Your task to perform on an android device: What is the recent news? Image 0: 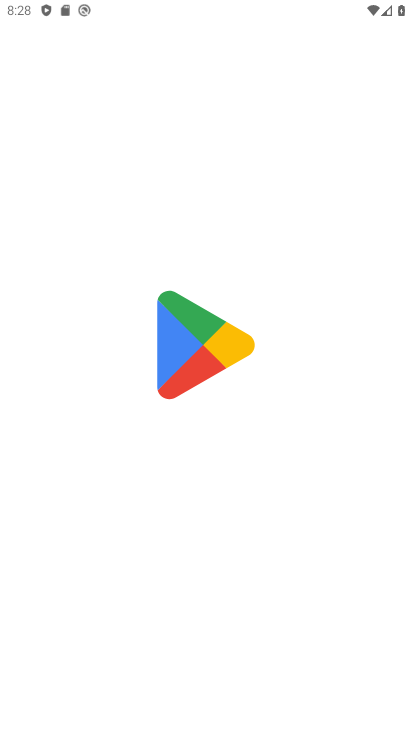
Step 0: press home button
Your task to perform on an android device: What is the recent news? Image 1: 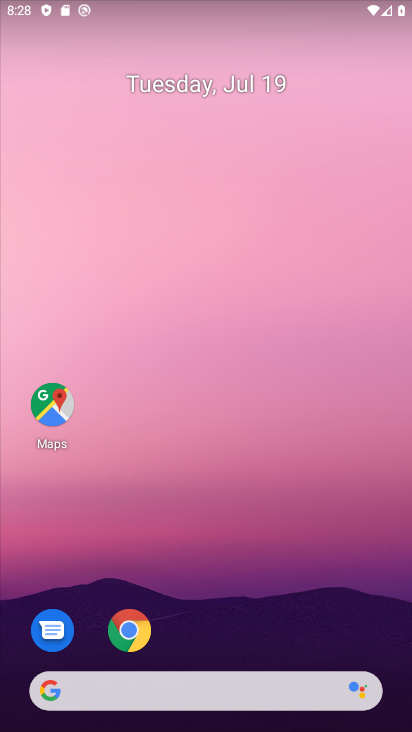
Step 1: drag from (209, 655) to (233, 175)
Your task to perform on an android device: What is the recent news? Image 2: 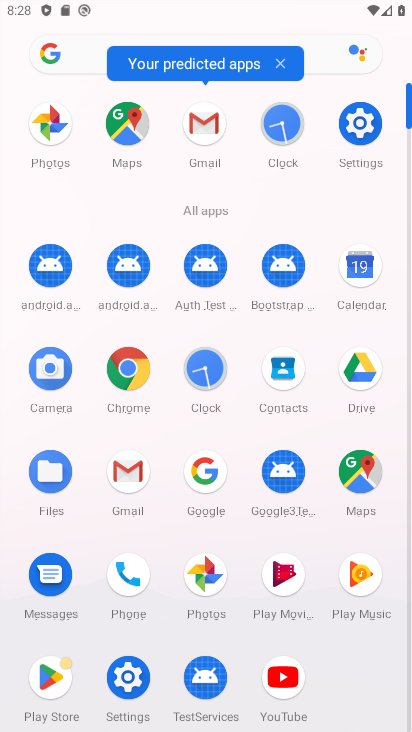
Step 2: click (211, 477)
Your task to perform on an android device: What is the recent news? Image 3: 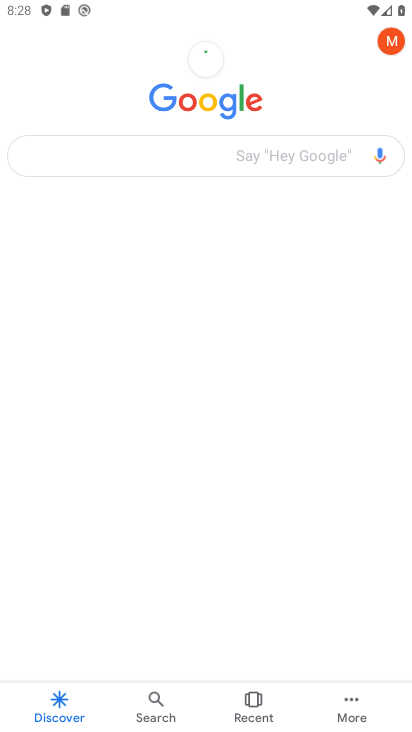
Step 3: click (184, 159)
Your task to perform on an android device: What is the recent news? Image 4: 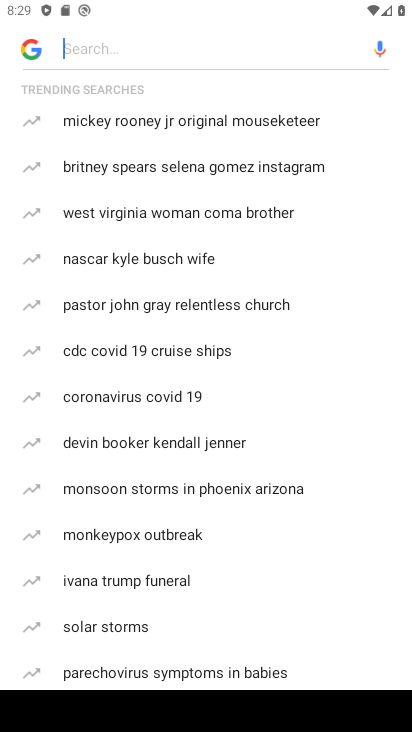
Step 4: type "what is recent news"
Your task to perform on an android device: What is the recent news? Image 5: 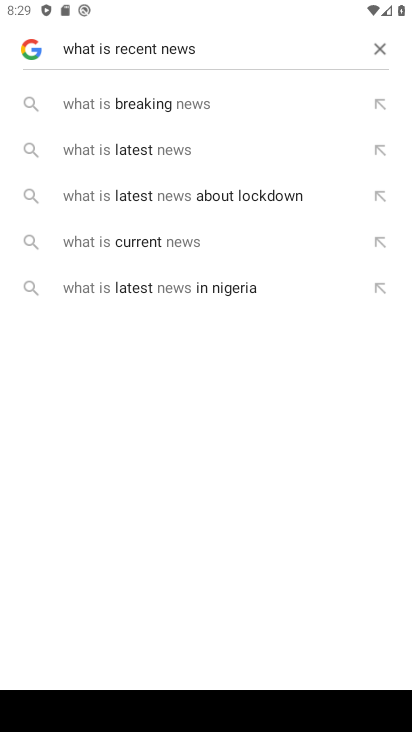
Step 5: click (376, 47)
Your task to perform on an android device: What is the recent news? Image 6: 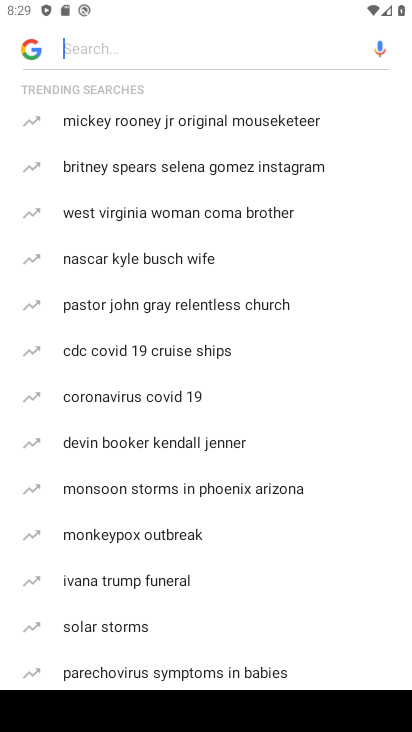
Step 6: type "recent news"
Your task to perform on an android device: What is the recent news? Image 7: 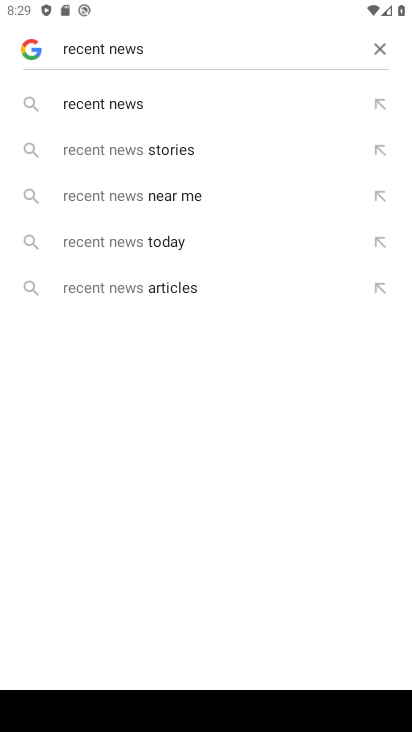
Step 7: click (150, 97)
Your task to perform on an android device: What is the recent news? Image 8: 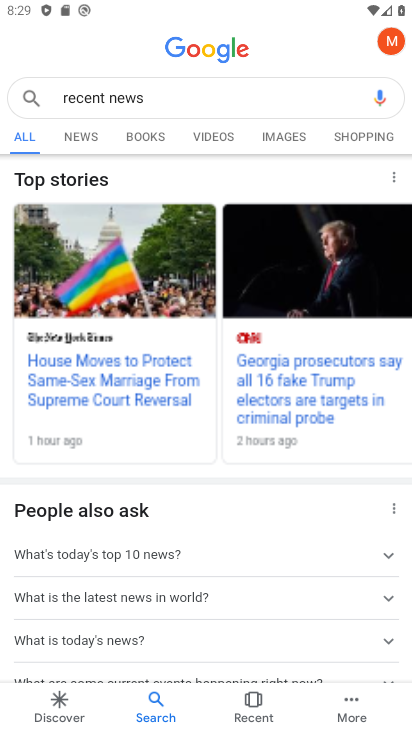
Step 8: task complete